Your task to perform on an android device: turn on wifi Image 0: 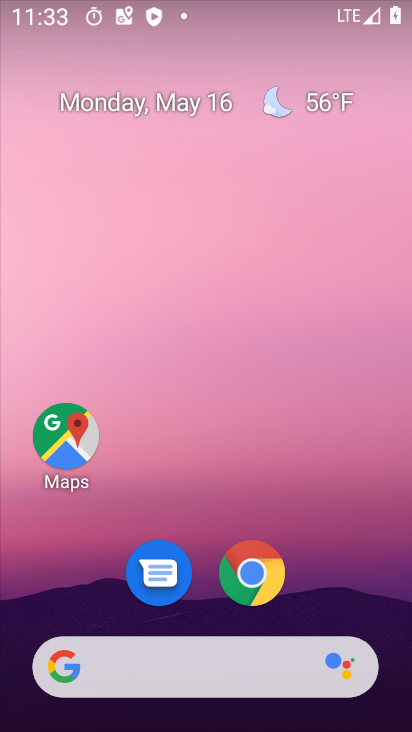
Step 0: drag from (209, 703) to (368, 9)
Your task to perform on an android device: turn on wifi Image 1: 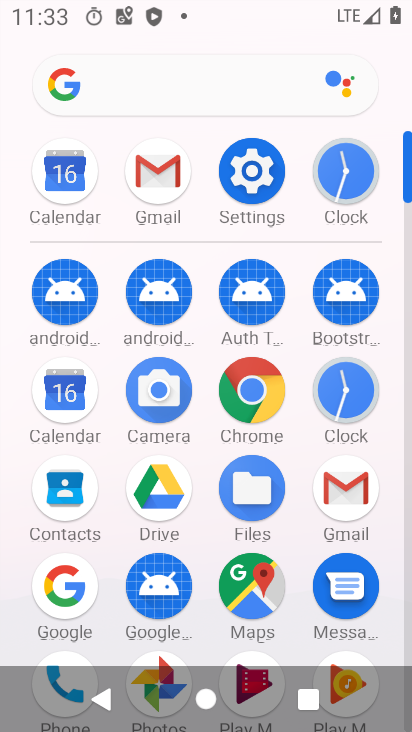
Step 1: click (270, 157)
Your task to perform on an android device: turn on wifi Image 2: 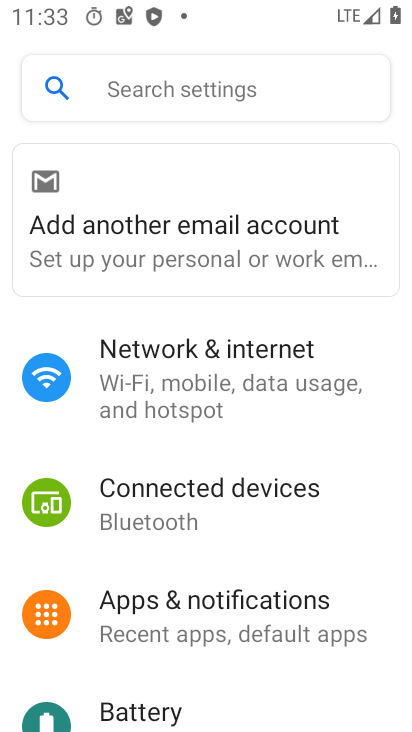
Step 2: click (167, 375)
Your task to perform on an android device: turn on wifi Image 3: 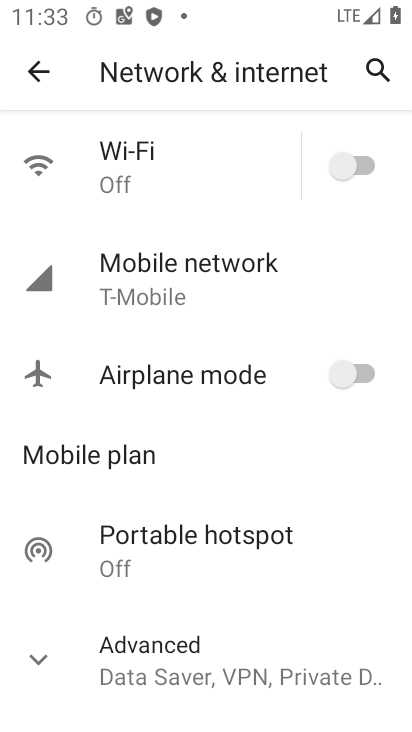
Step 3: click (361, 156)
Your task to perform on an android device: turn on wifi Image 4: 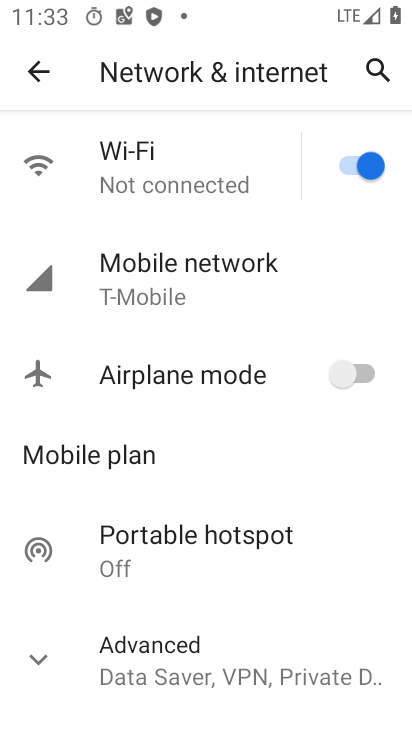
Step 4: task complete